Your task to perform on an android device: open a bookmark in the chrome app Image 0: 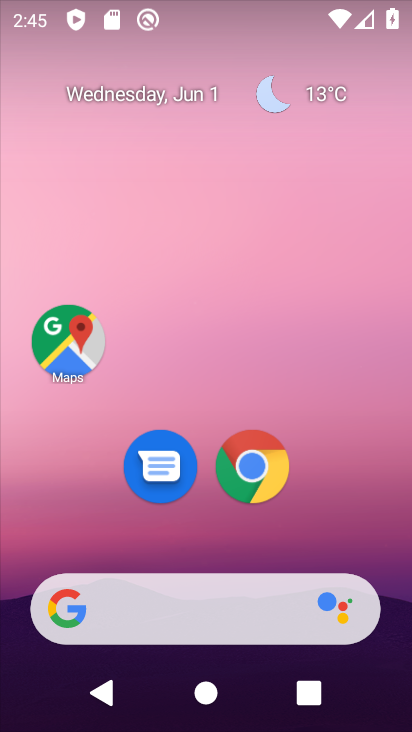
Step 0: click (255, 468)
Your task to perform on an android device: open a bookmark in the chrome app Image 1: 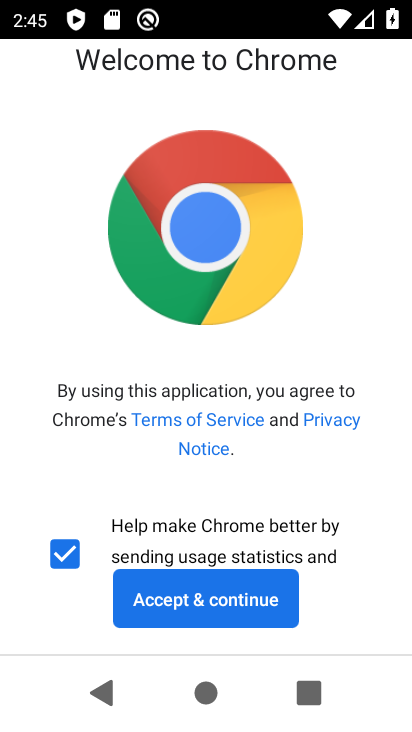
Step 1: click (247, 592)
Your task to perform on an android device: open a bookmark in the chrome app Image 2: 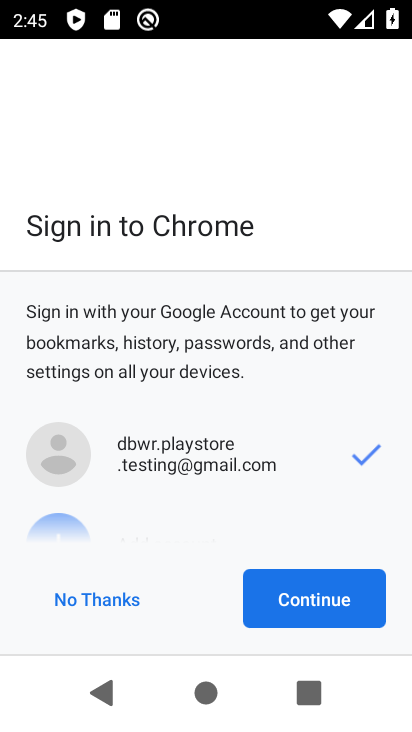
Step 2: click (287, 616)
Your task to perform on an android device: open a bookmark in the chrome app Image 3: 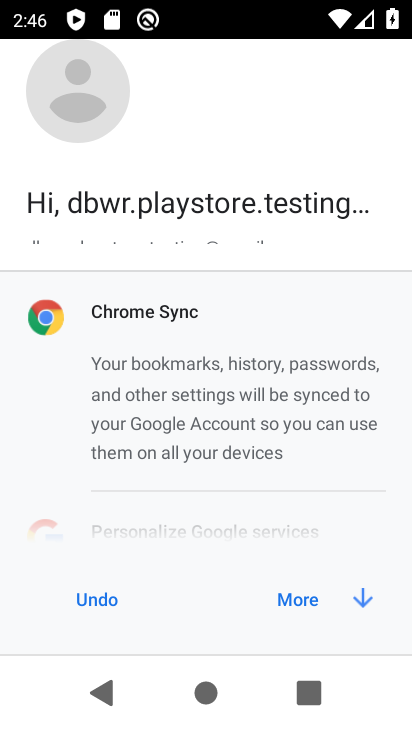
Step 3: click (287, 616)
Your task to perform on an android device: open a bookmark in the chrome app Image 4: 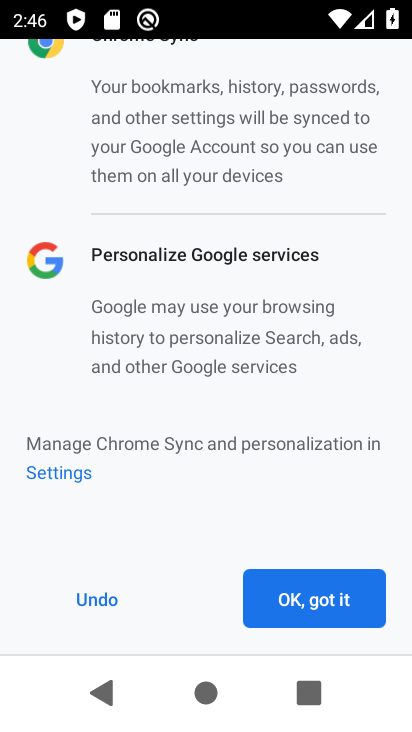
Step 4: click (287, 616)
Your task to perform on an android device: open a bookmark in the chrome app Image 5: 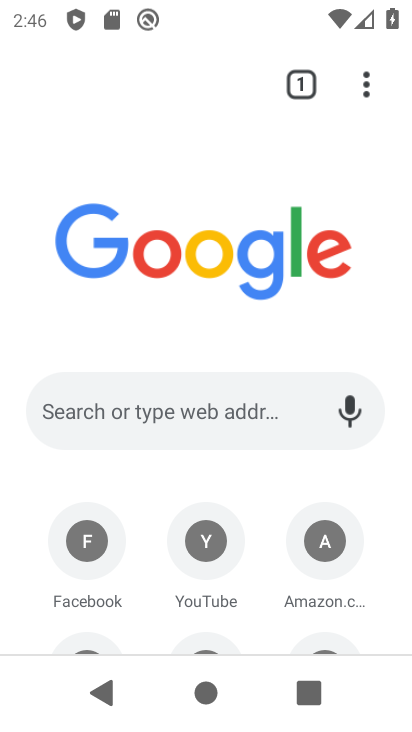
Step 5: click (363, 84)
Your task to perform on an android device: open a bookmark in the chrome app Image 6: 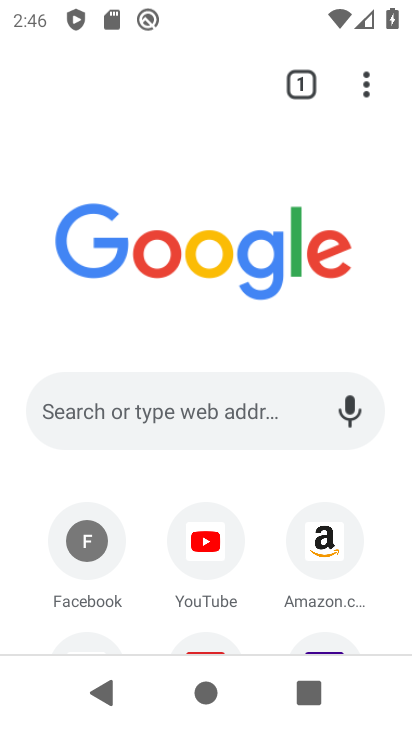
Step 6: click (363, 84)
Your task to perform on an android device: open a bookmark in the chrome app Image 7: 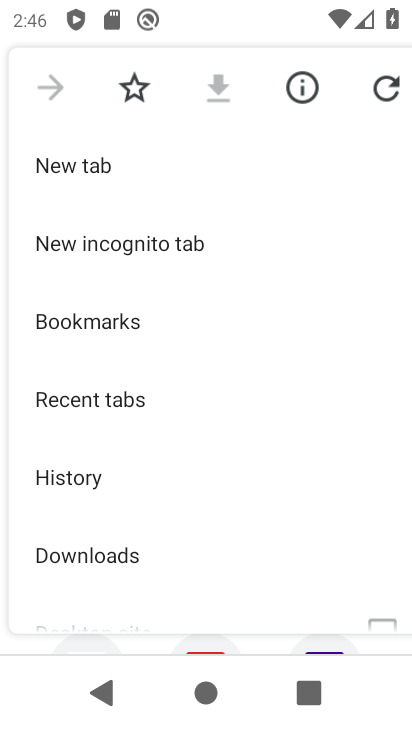
Step 7: click (143, 321)
Your task to perform on an android device: open a bookmark in the chrome app Image 8: 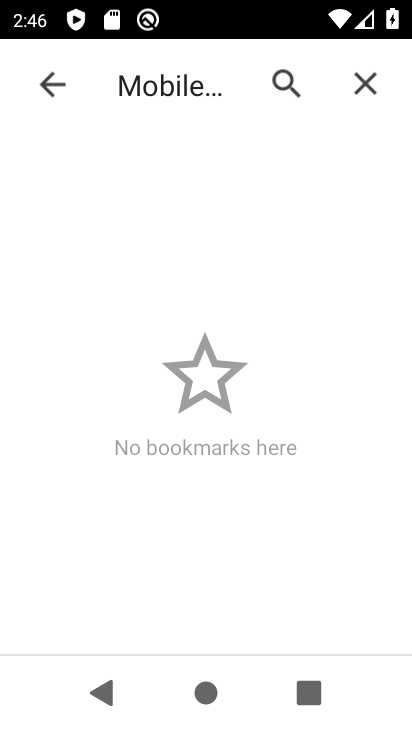
Step 8: task complete